Your task to perform on an android device: turn off javascript in the chrome app Image 0: 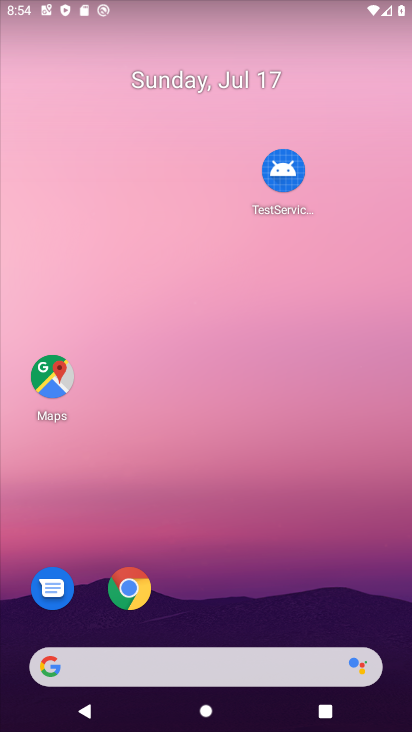
Step 0: drag from (209, 541) to (173, 80)
Your task to perform on an android device: turn off javascript in the chrome app Image 1: 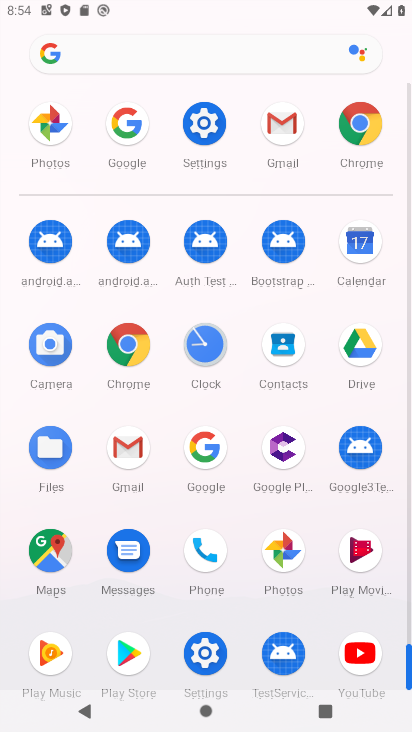
Step 1: click (368, 138)
Your task to perform on an android device: turn off javascript in the chrome app Image 2: 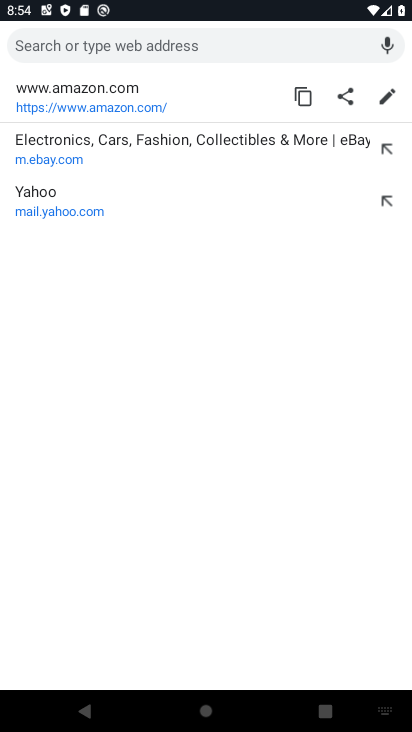
Step 2: press back button
Your task to perform on an android device: turn off javascript in the chrome app Image 3: 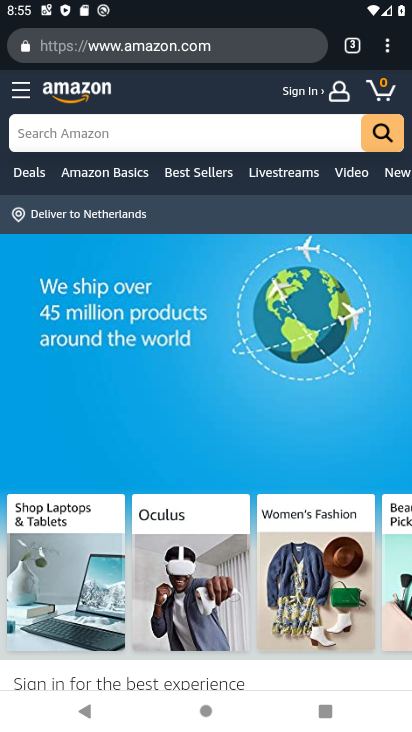
Step 3: click (390, 44)
Your task to perform on an android device: turn off javascript in the chrome app Image 4: 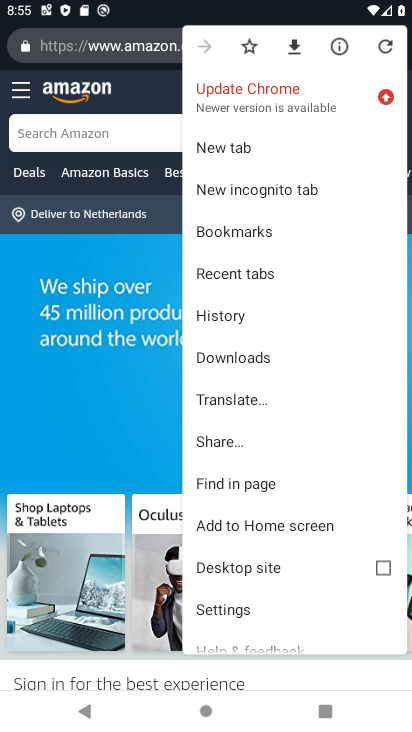
Step 4: click (237, 613)
Your task to perform on an android device: turn off javascript in the chrome app Image 5: 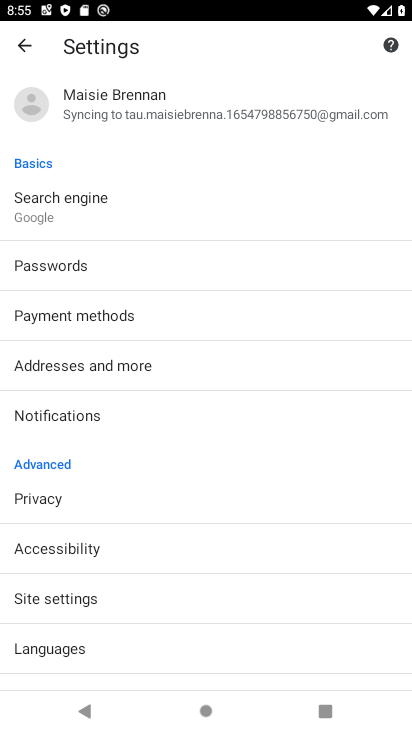
Step 5: drag from (128, 567) to (162, 273)
Your task to perform on an android device: turn off javascript in the chrome app Image 6: 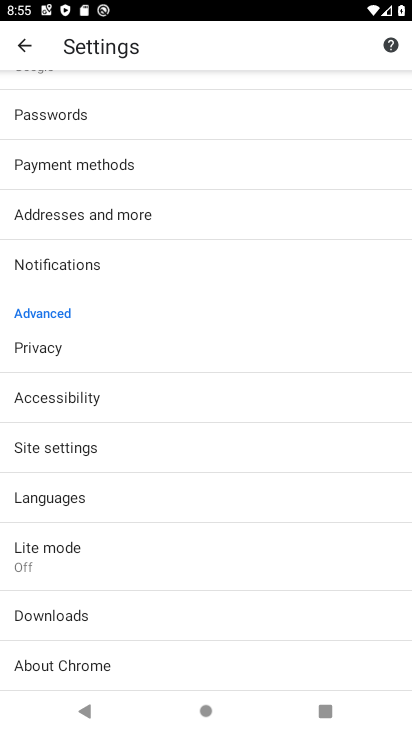
Step 6: click (90, 452)
Your task to perform on an android device: turn off javascript in the chrome app Image 7: 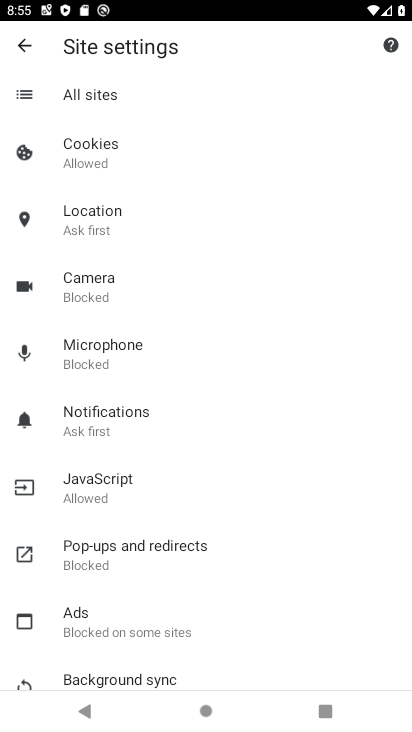
Step 7: click (104, 483)
Your task to perform on an android device: turn off javascript in the chrome app Image 8: 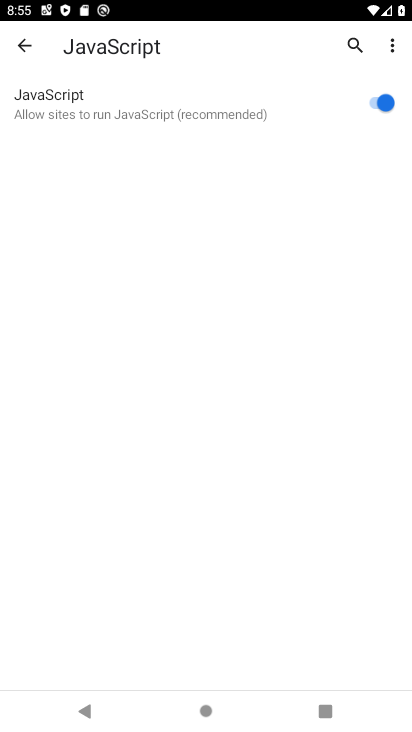
Step 8: click (368, 107)
Your task to perform on an android device: turn off javascript in the chrome app Image 9: 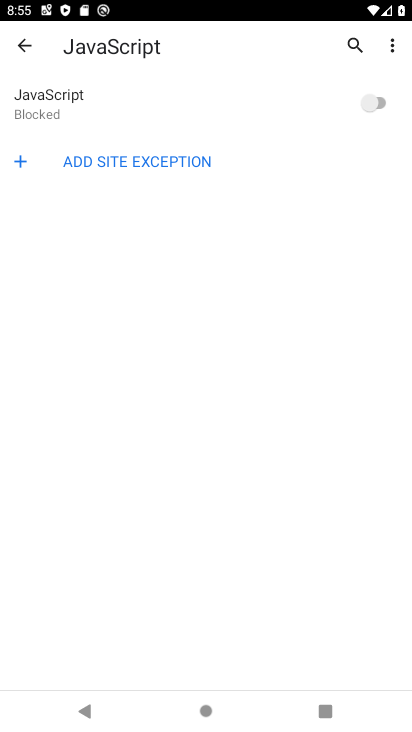
Step 9: task complete